Your task to perform on an android device: Open Android settings Image 0: 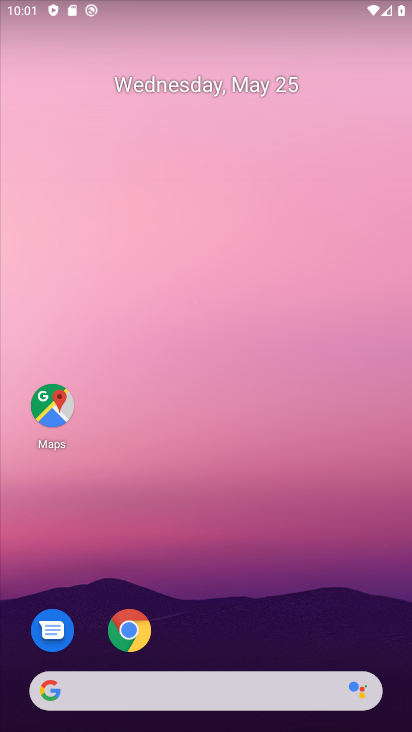
Step 0: drag from (393, 681) to (367, 186)
Your task to perform on an android device: Open Android settings Image 1: 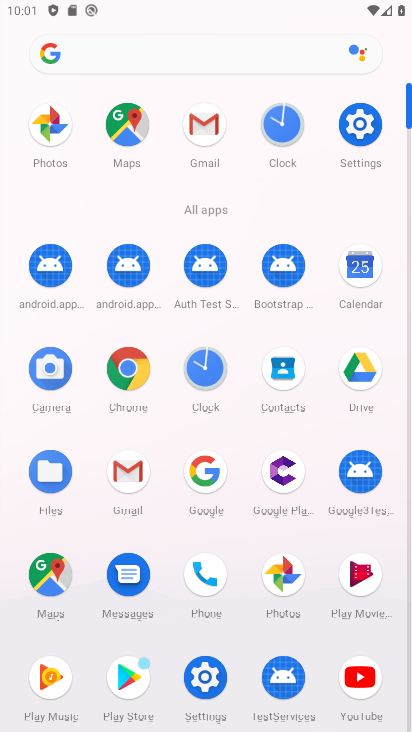
Step 1: click (355, 137)
Your task to perform on an android device: Open Android settings Image 2: 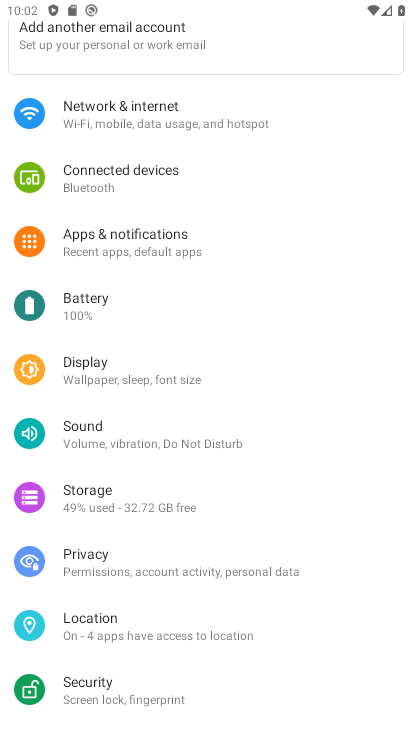
Step 2: task complete